Your task to perform on an android device: open app "LiveIn - Share Your Moment" (install if not already installed), go to login, and select forgot password Image 0: 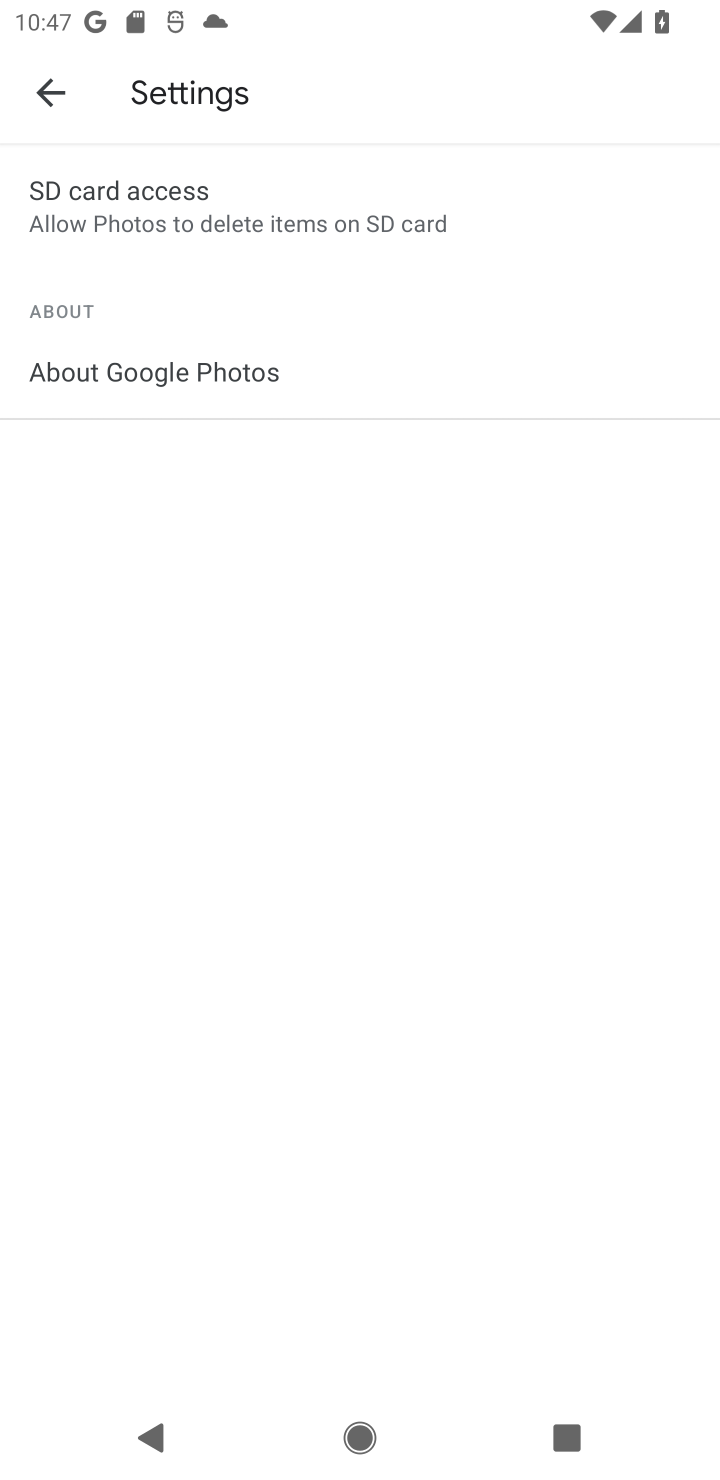
Step 0: press back button
Your task to perform on an android device: open app "LiveIn - Share Your Moment" (install if not already installed), go to login, and select forgot password Image 1: 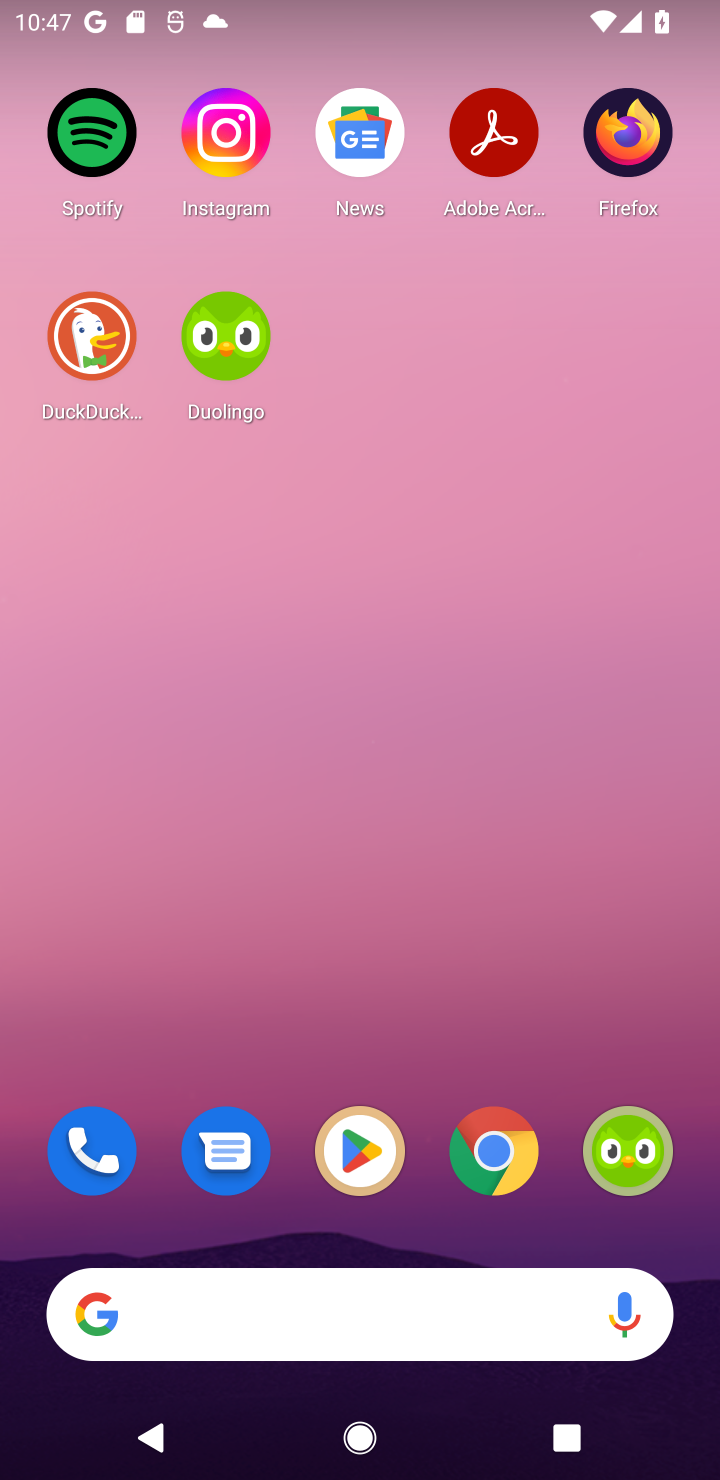
Step 1: click (362, 1132)
Your task to perform on an android device: open app "LiveIn - Share Your Moment" (install if not already installed), go to login, and select forgot password Image 2: 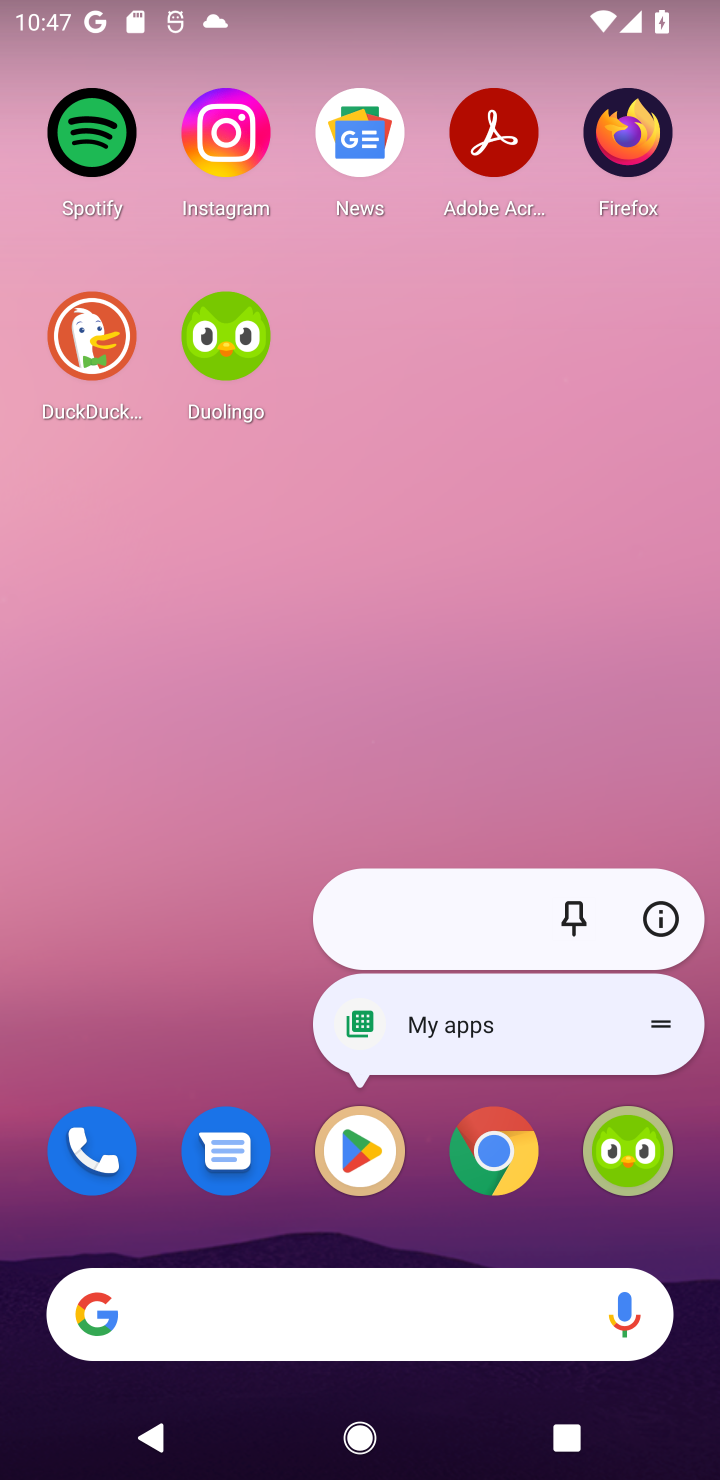
Step 2: click (366, 1142)
Your task to perform on an android device: open app "LiveIn - Share Your Moment" (install if not already installed), go to login, and select forgot password Image 3: 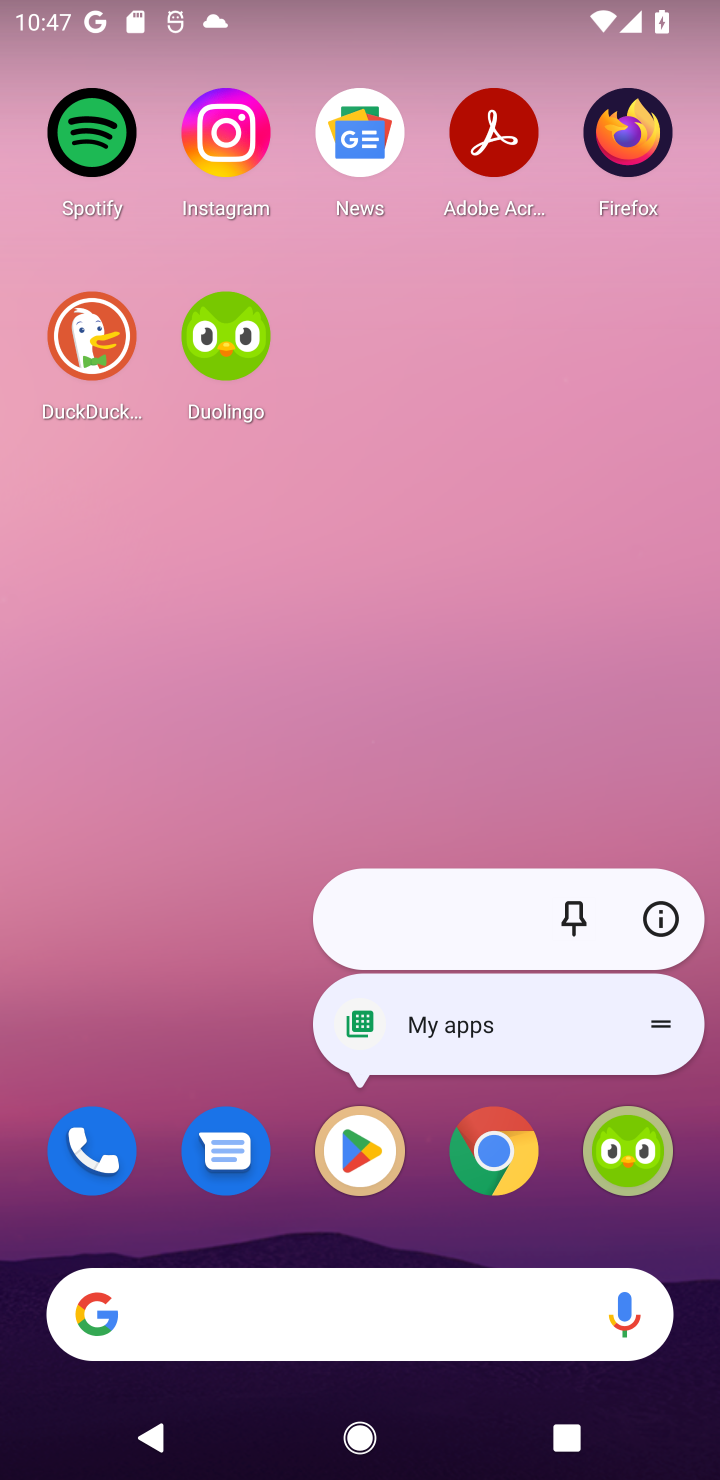
Step 3: click (368, 1144)
Your task to perform on an android device: open app "LiveIn - Share Your Moment" (install if not already installed), go to login, and select forgot password Image 4: 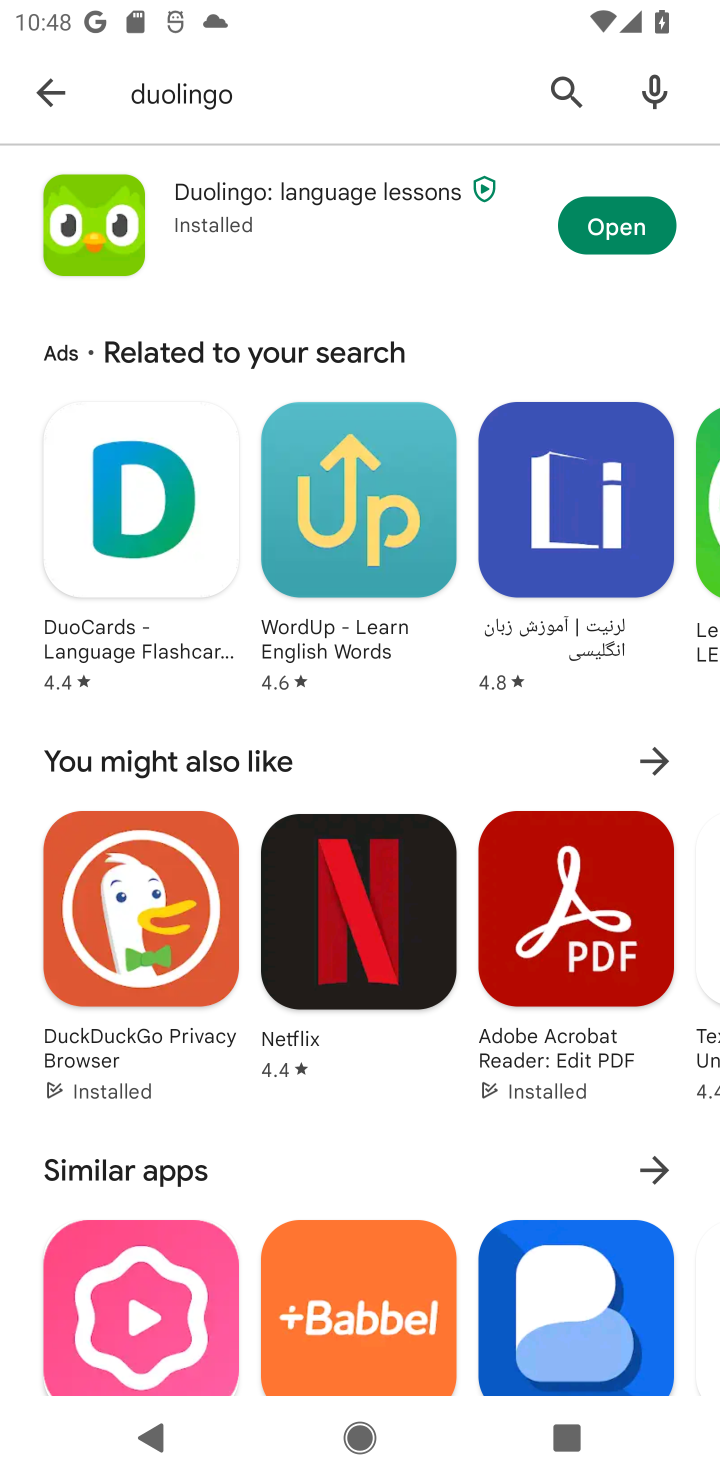
Step 4: click (565, 90)
Your task to perform on an android device: open app "LiveIn - Share Your Moment" (install if not already installed), go to login, and select forgot password Image 5: 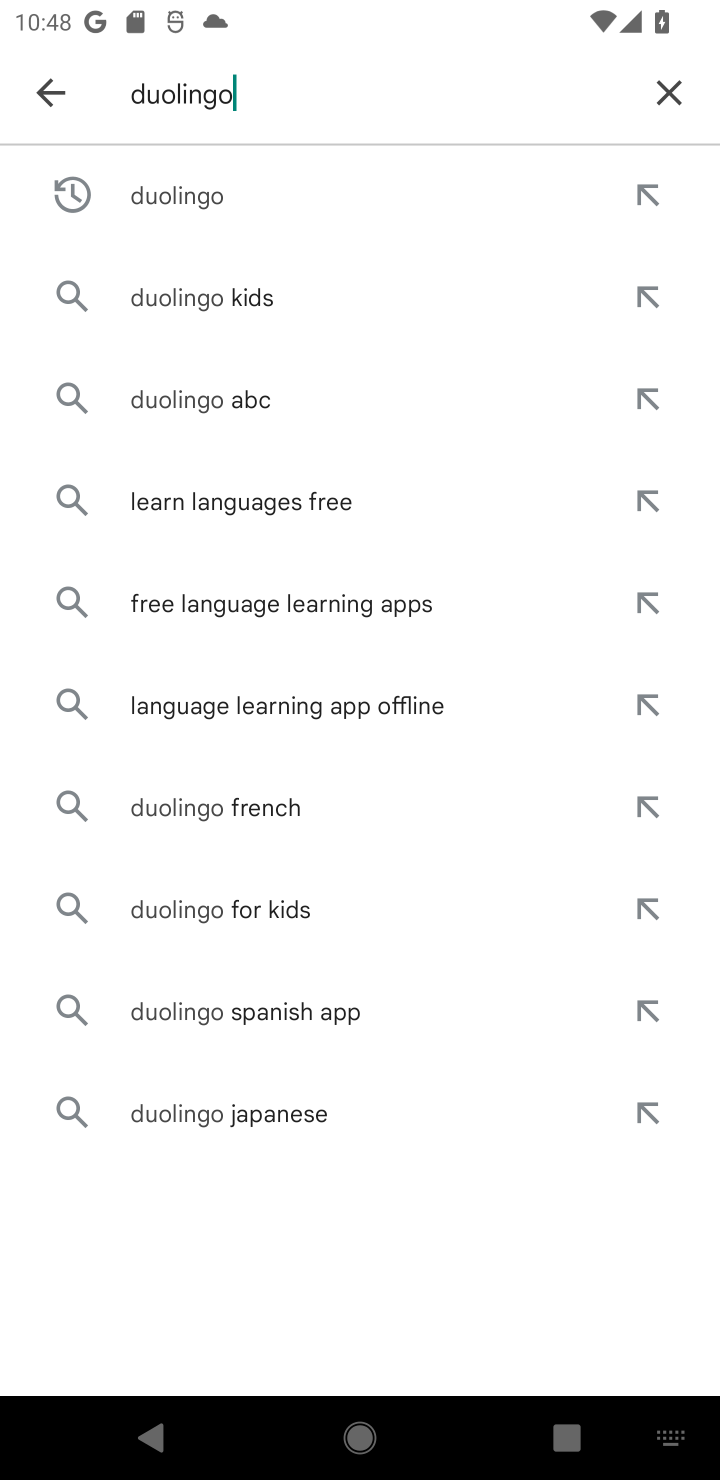
Step 5: click (675, 89)
Your task to perform on an android device: open app "LiveIn - Share Your Moment" (install if not already installed), go to login, and select forgot password Image 6: 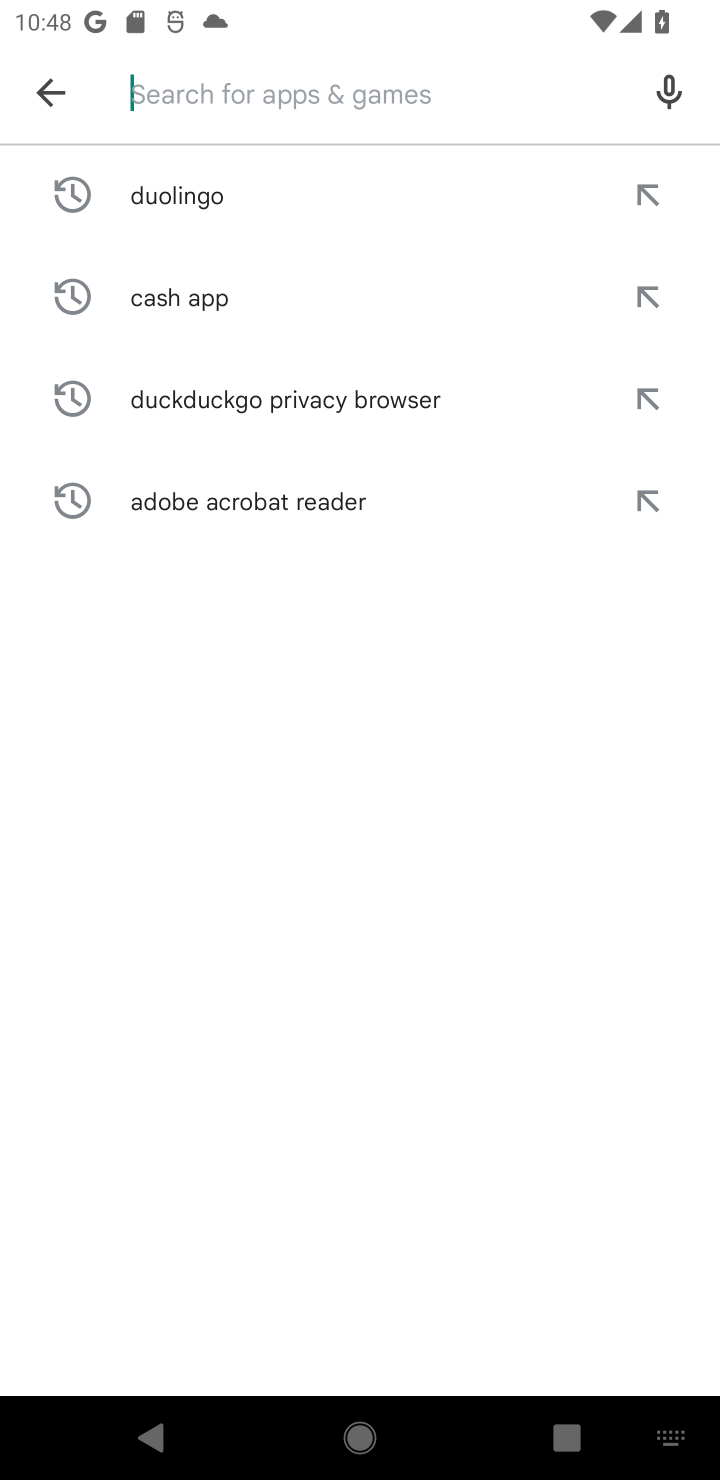
Step 6: click (282, 91)
Your task to perform on an android device: open app "LiveIn - Share Your Moment" (install if not already installed), go to login, and select forgot password Image 7: 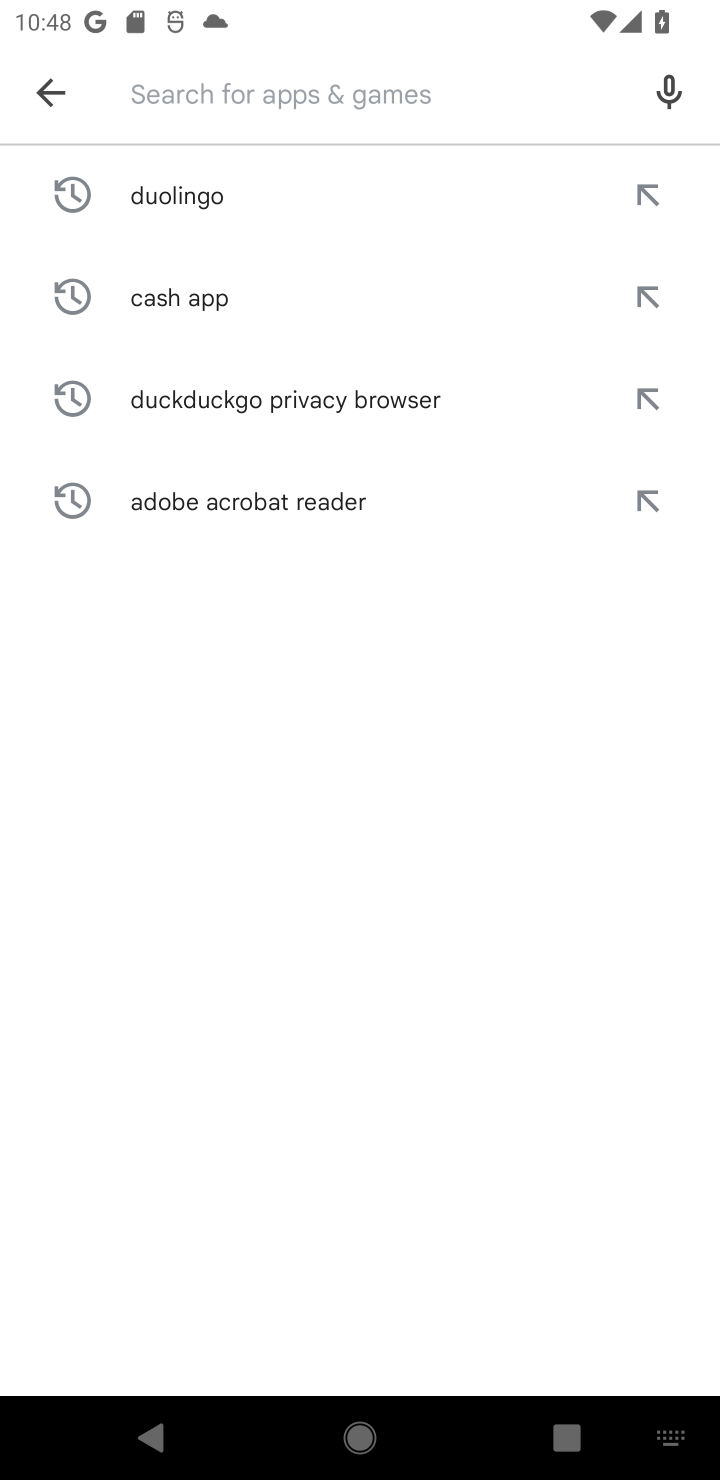
Step 7: type "liveln"
Your task to perform on an android device: open app "LiveIn - Share Your Moment" (install if not already installed), go to login, and select forgot password Image 8: 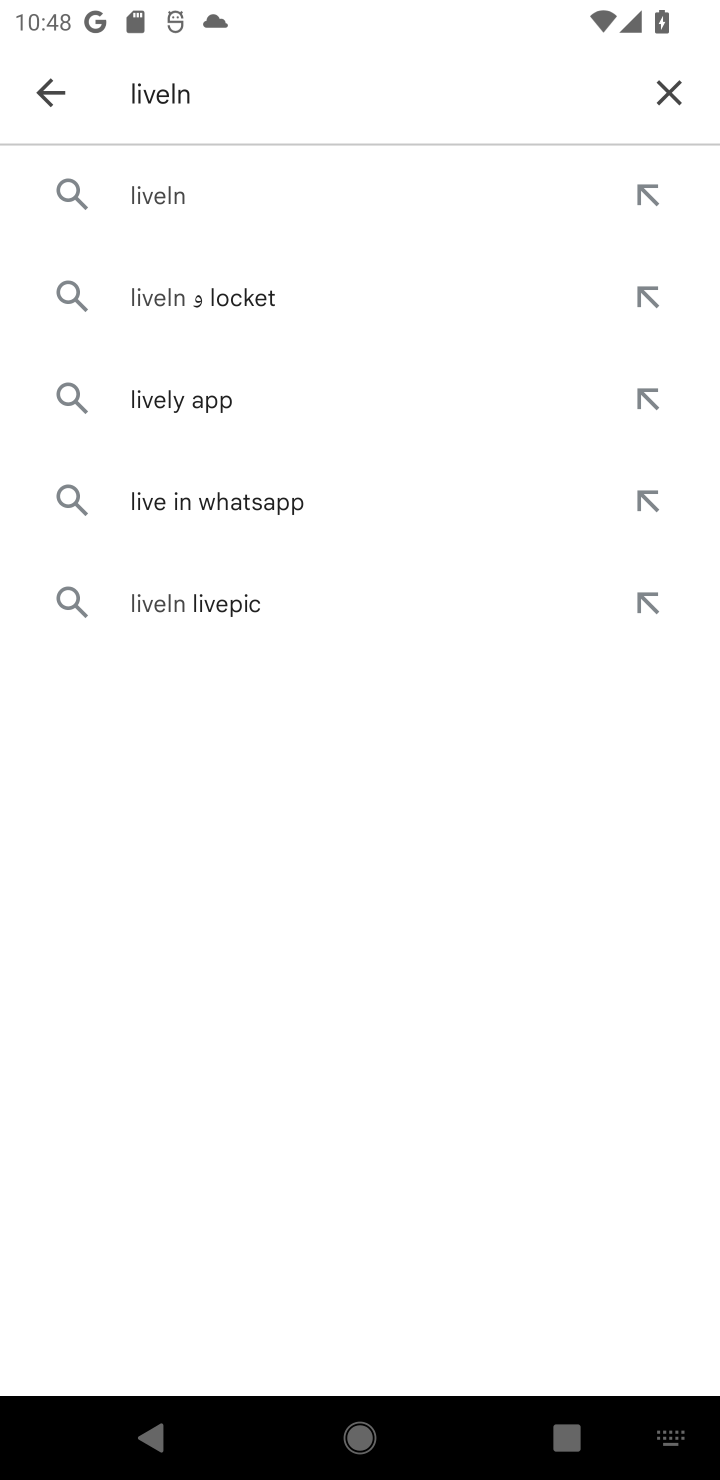
Step 8: click (174, 199)
Your task to perform on an android device: open app "LiveIn - Share Your Moment" (install if not already installed), go to login, and select forgot password Image 9: 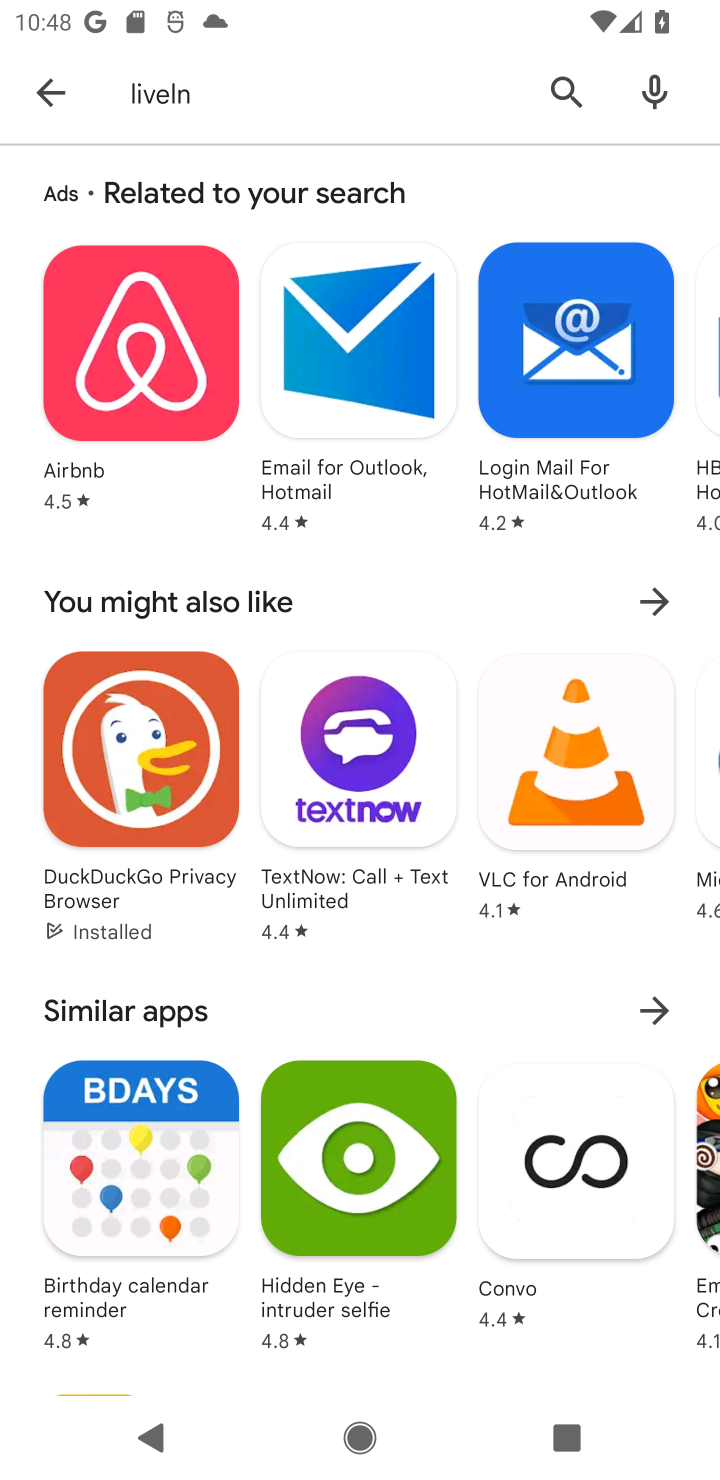
Step 9: task complete